Your task to perform on an android device: Open Chrome and go to settings Image 0: 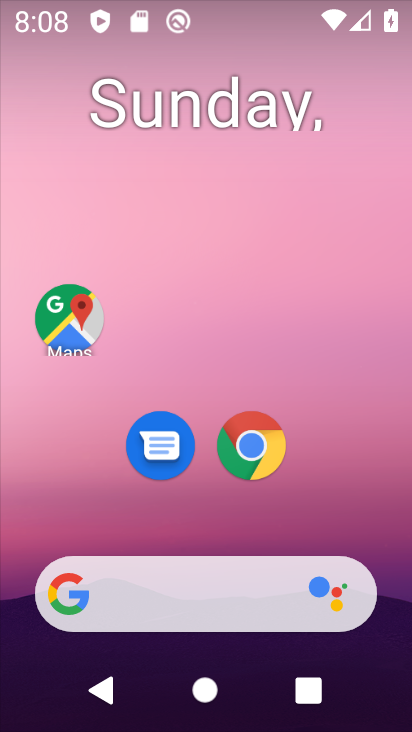
Step 0: click (246, 441)
Your task to perform on an android device: Open Chrome and go to settings Image 1: 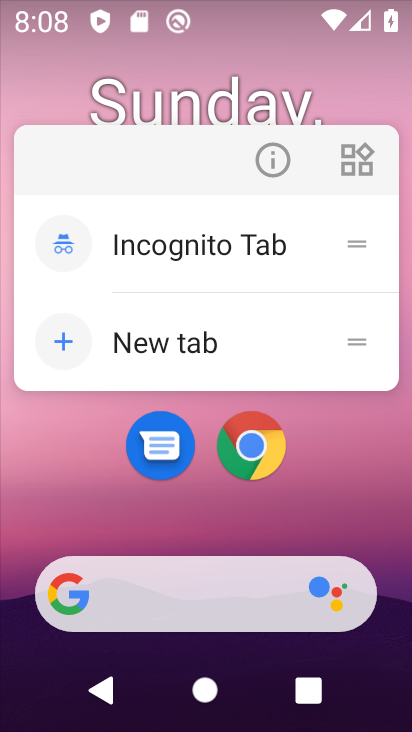
Step 1: click (246, 441)
Your task to perform on an android device: Open Chrome and go to settings Image 2: 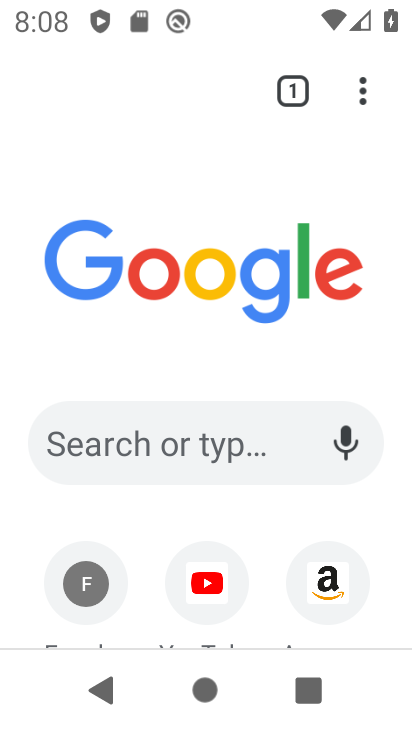
Step 2: click (361, 84)
Your task to perform on an android device: Open Chrome and go to settings Image 3: 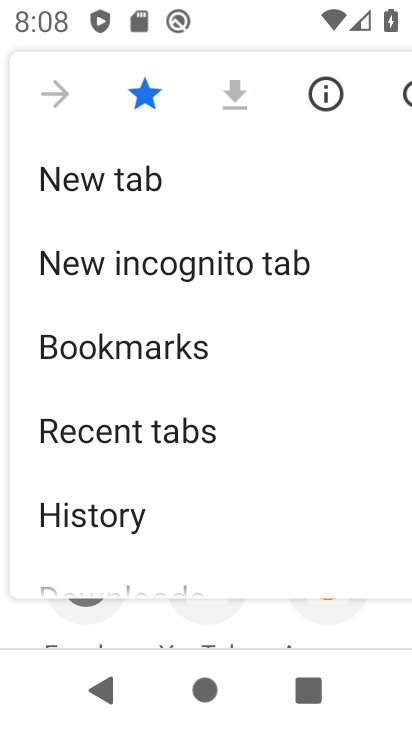
Step 3: drag from (171, 488) to (185, 110)
Your task to perform on an android device: Open Chrome and go to settings Image 4: 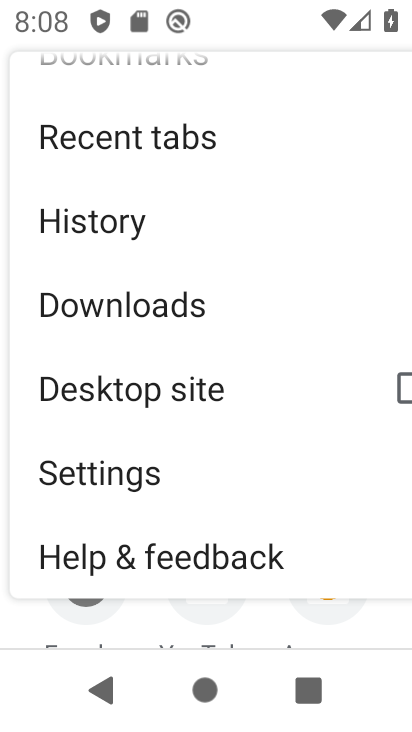
Step 4: click (151, 458)
Your task to perform on an android device: Open Chrome and go to settings Image 5: 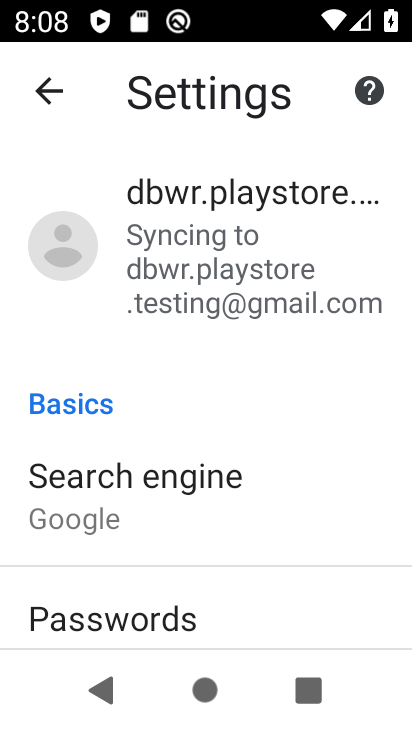
Step 5: task complete